Your task to perform on an android device: Is it going to rain this weekend? Image 0: 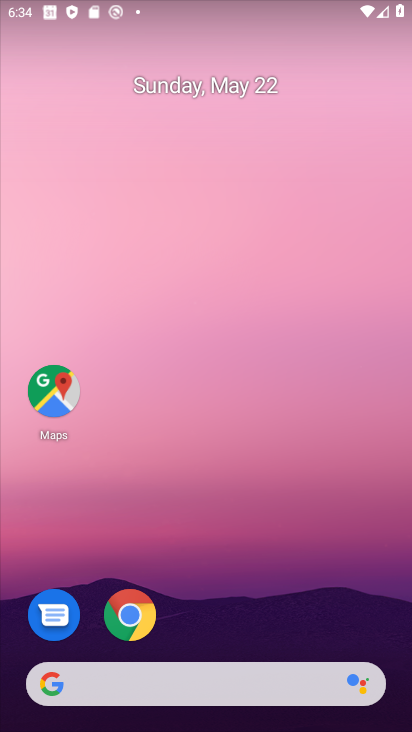
Step 0: drag from (268, 514) to (198, 11)
Your task to perform on an android device: Is it going to rain this weekend? Image 1: 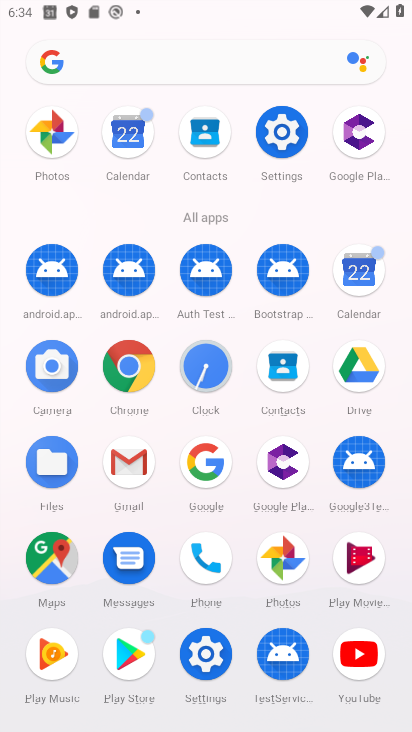
Step 1: click (128, 71)
Your task to perform on an android device: Is it going to rain this weekend? Image 2: 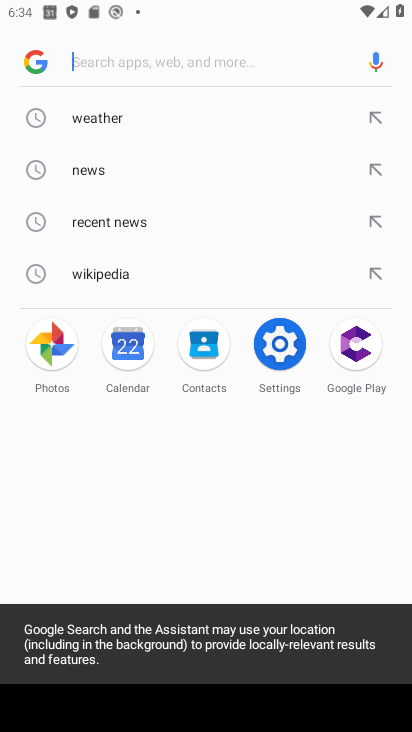
Step 2: click (93, 111)
Your task to perform on an android device: Is it going to rain this weekend? Image 3: 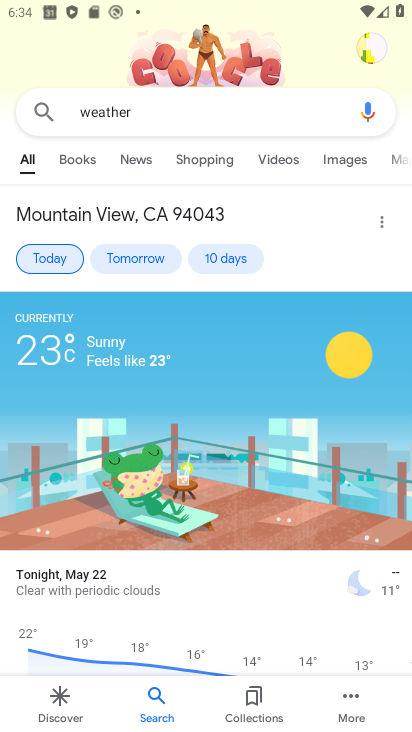
Step 3: click (235, 259)
Your task to perform on an android device: Is it going to rain this weekend? Image 4: 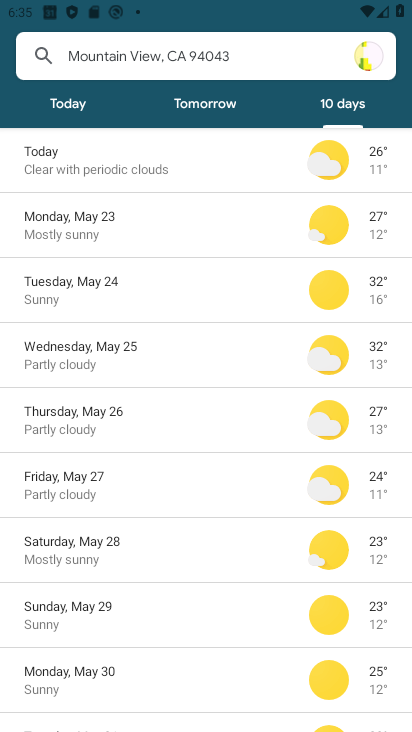
Step 4: task complete